Your task to perform on an android device: Open the Play Movies app and select the watchlist tab. Image 0: 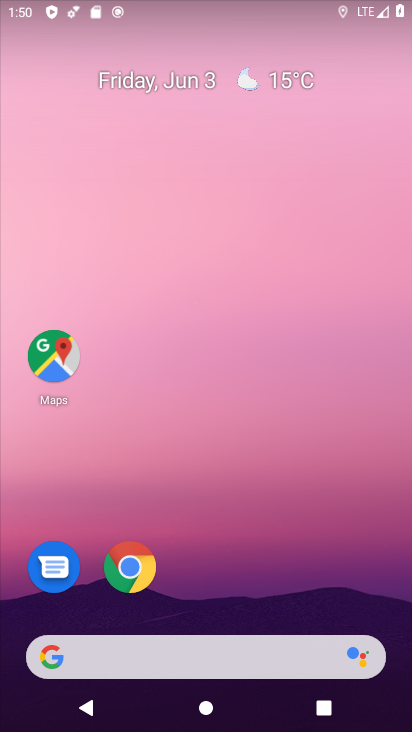
Step 0: drag from (212, 630) to (305, 76)
Your task to perform on an android device: Open the Play Movies app and select the watchlist tab. Image 1: 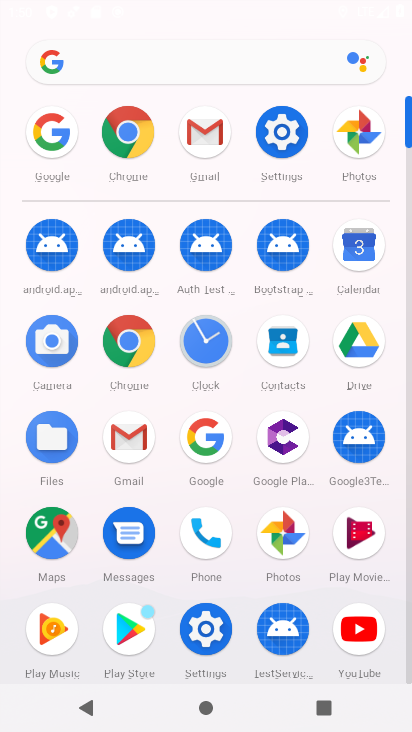
Step 1: click (352, 535)
Your task to perform on an android device: Open the Play Movies app and select the watchlist tab. Image 2: 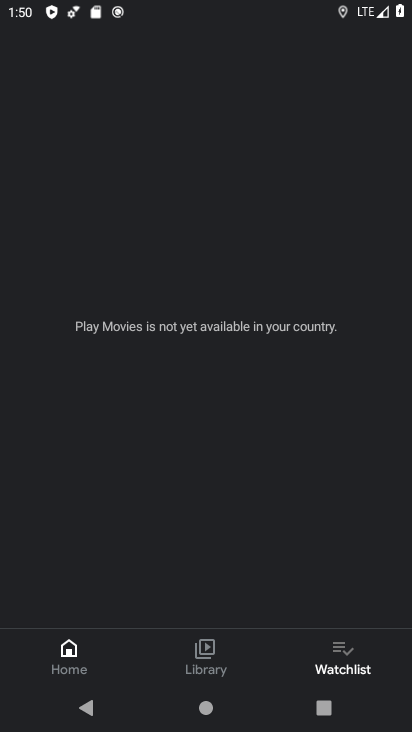
Step 2: task complete